Your task to perform on an android device: Open settings on Google Maps Image 0: 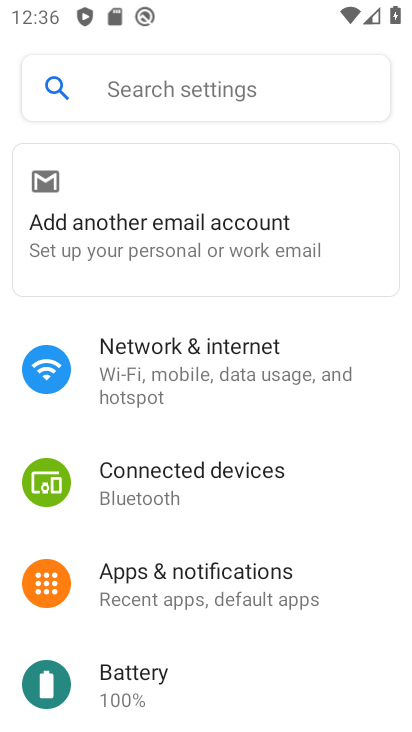
Step 0: press home button
Your task to perform on an android device: Open settings on Google Maps Image 1: 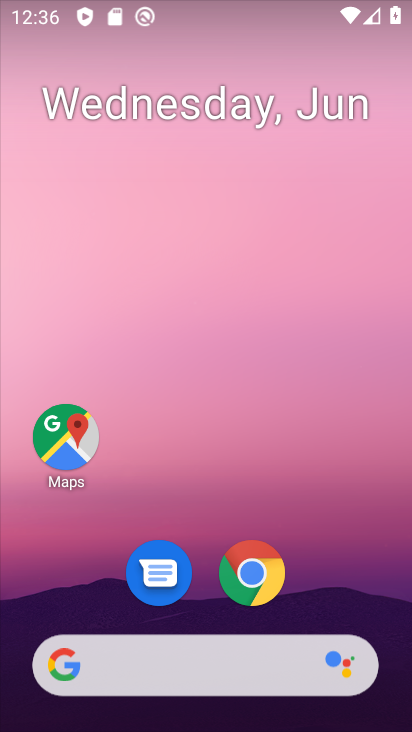
Step 1: drag from (393, 586) to (323, 111)
Your task to perform on an android device: Open settings on Google Maps Image 2: 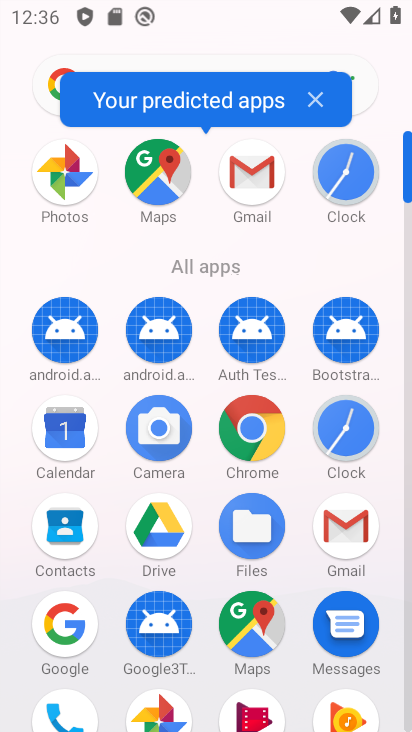
Step 2: click (250, 628)
Your task to perform on an android device: Open settings on Google Maps Image 3: 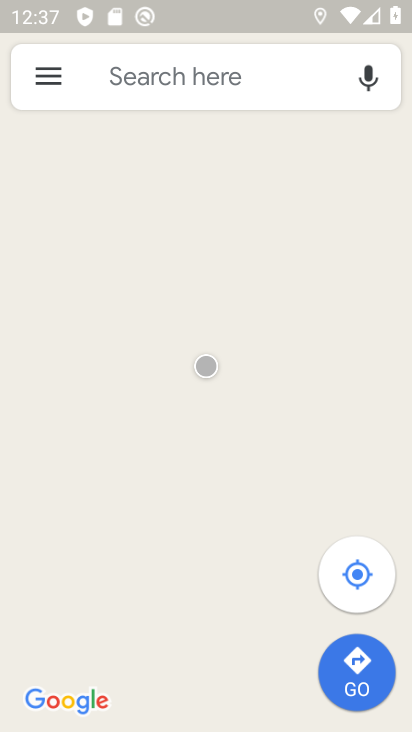
Step 3: click (56, 78)
Your task to perform on an android device: Open settings on Google Maps Image 4: 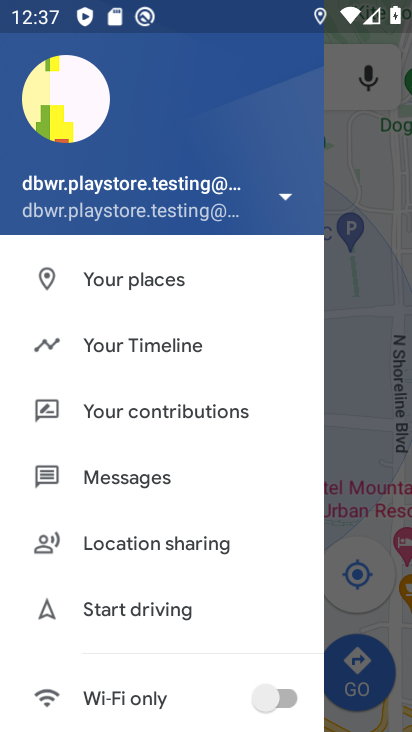
Step 4: click (117, 339)
Your task to perform on an android device: Open settings on Google Maps Image 5: 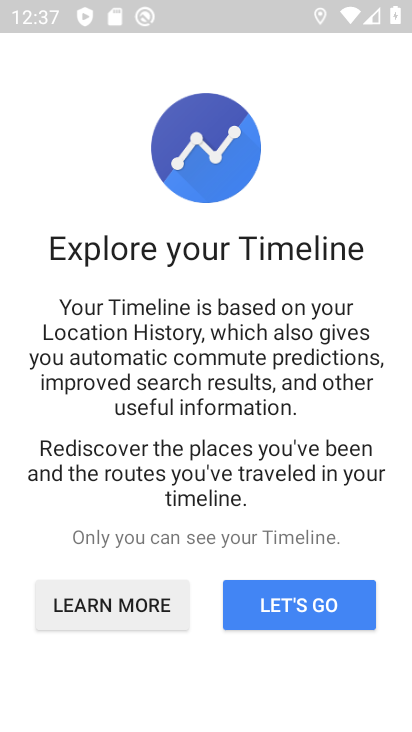
Step 5: click (340, 600)
Your task to perform on an android device: Open settings on Google Maps Image 6: 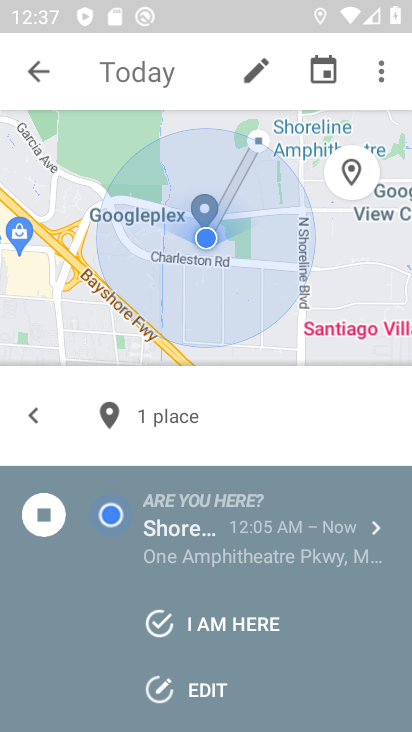
Step 6: click (394, 77)
Your task to perform on an android device: Open settings on Google Maps Image 7: 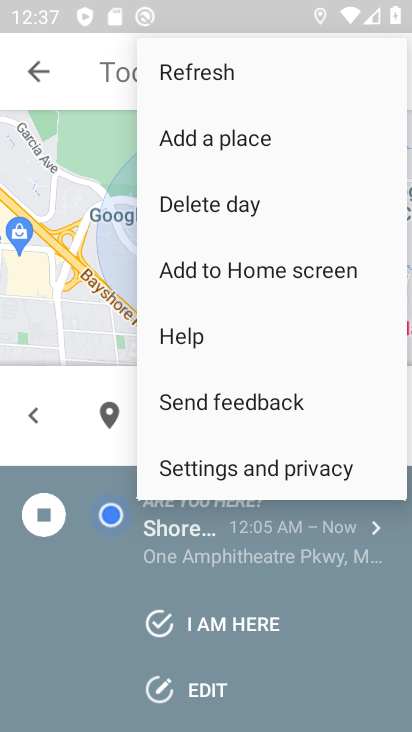
Step 7: click (232, 469)
Your task to perform on an android device: Open settings on Google Maps Image 8: 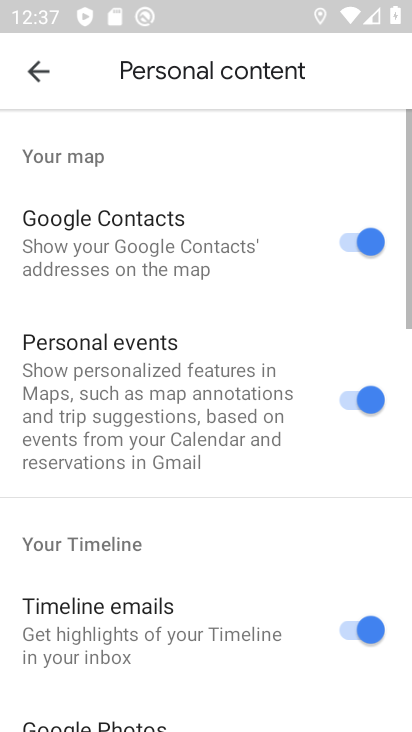
Step 8: task complete